Your task to perform on an android device: Open accessibility settings Image 0: 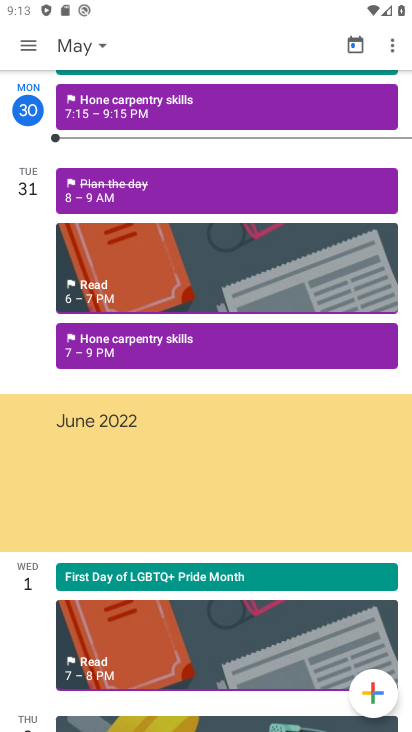
Step 0: task complete